Your task to perform on an android device: Go to sound settings Image 0: 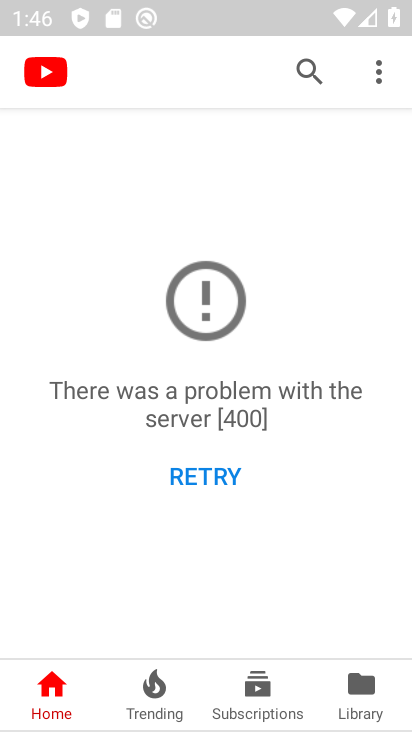
Step 0: press home button
Your task to perform on an android device: Go to sound settings Image 1: 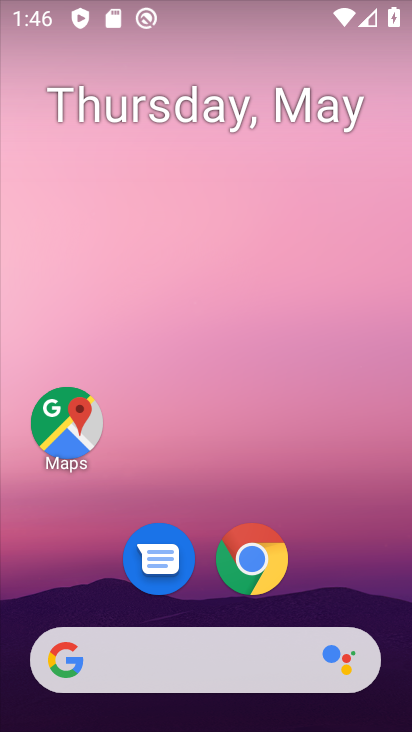
Step 1: drag from (213, 602) to (206, 104)
Your task to perform on an android device: Go to sound settings Image 2: 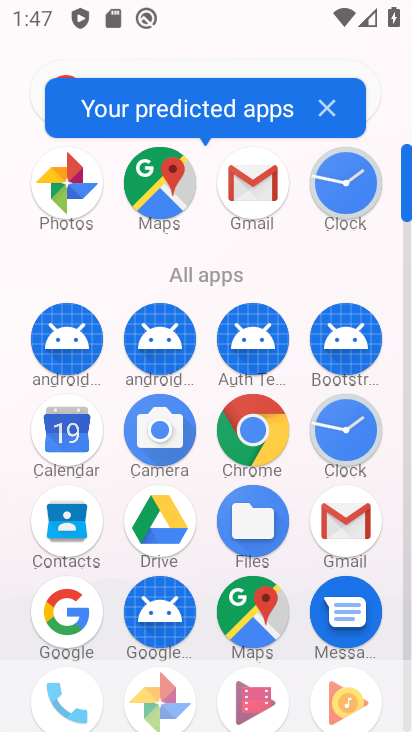
Step 2: drag from (198, 515) to (193, 187)
Your task to perform on an android device: Go to sound settings Image 3: 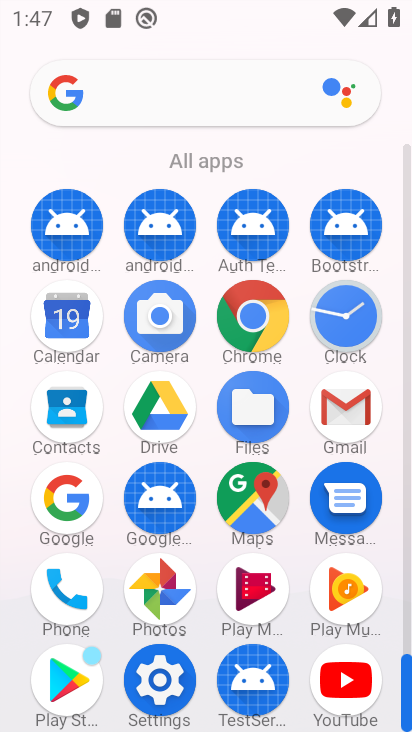
Step 3: click (173, 665)
Your task to perform on an android device: Go to sound settings Image 4: 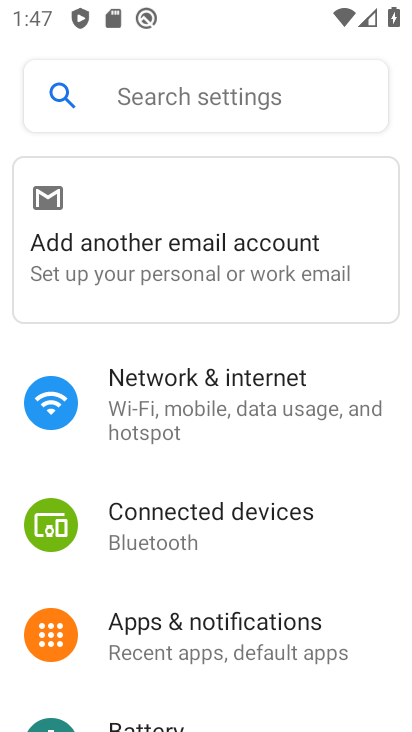
Step 4: drag from (193, 668) to (198, 300)
Your task to perform on an android device: Go to sound settings Image 5: 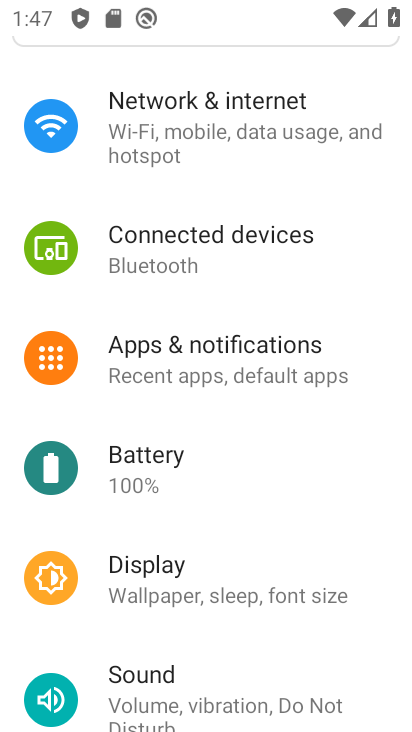
Step 5: click (186, 662)
Your task to perform on an android device: Go to sound settings Image 6: 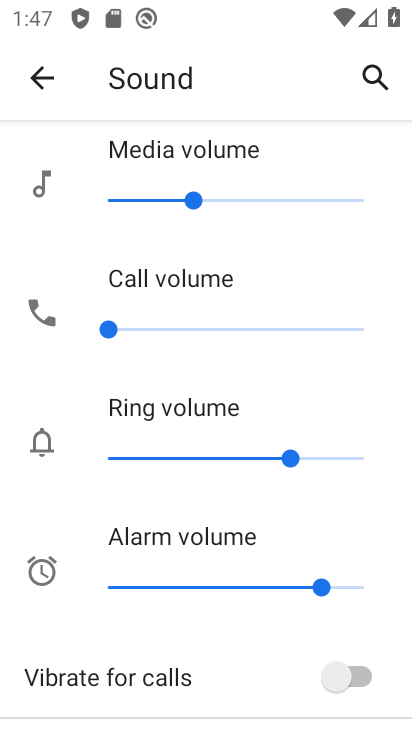
Step 6: task complete